Your task to perform on an android device: Do I have any events this weekend? Image 0: 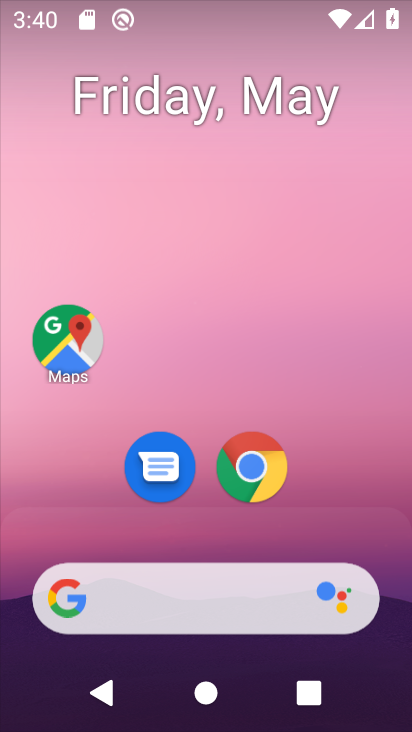
Step 0: drag from (165, 502) to (241, 26)
Your task to perform on an android device: Do I have any events this weekend? Image 1: 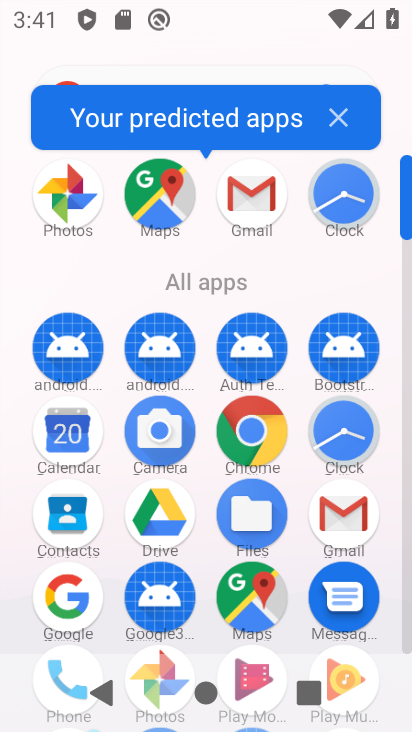
Step 1: click (70, 444)
Your task to perform on an android device: Do I have any events this weekend? Image 2: 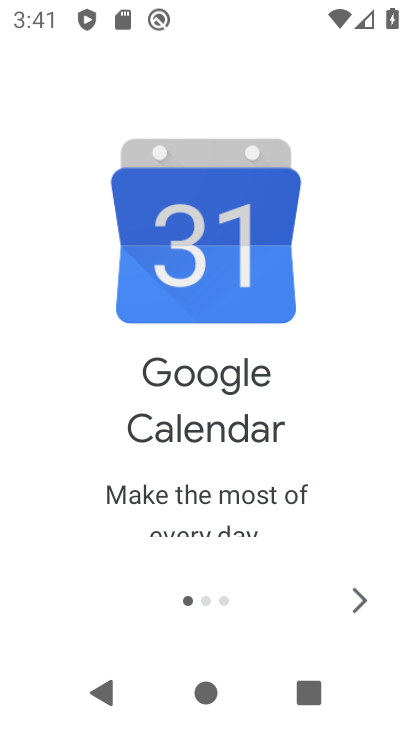
Step 2: click (361, 591)
Your task to perform on an android device: Do I have any events this weekend? Image 3: 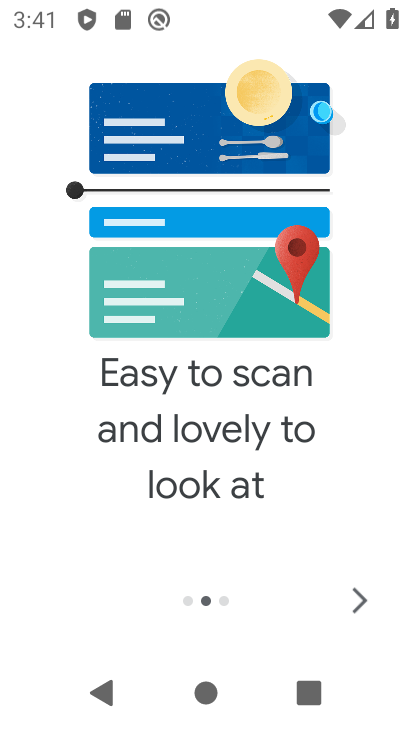
Step 3: click (361, 591)
Your task to perform on an android device: Do I have any events this weekend? Image 4: 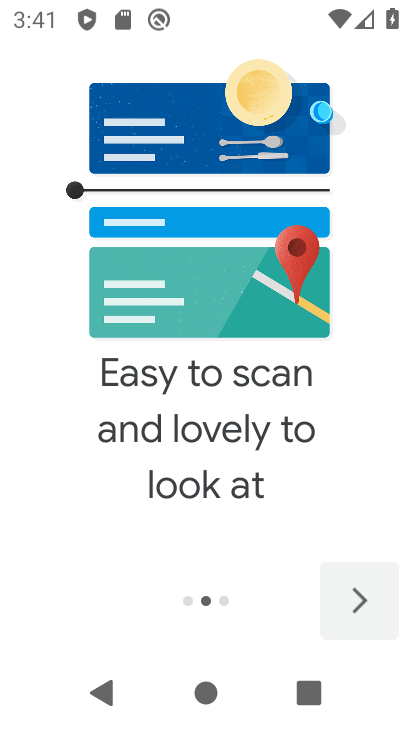
Step 4: click (361, 591)
Your task to perform on an android device: Do I have any events this weekend? Image 5: 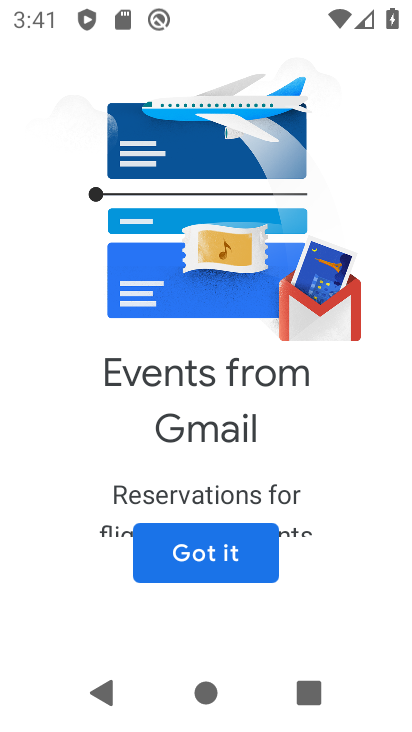
Step 5: click (202, 549)
Your task to perform on an android device: Do I have any events this weekend? Image 6: 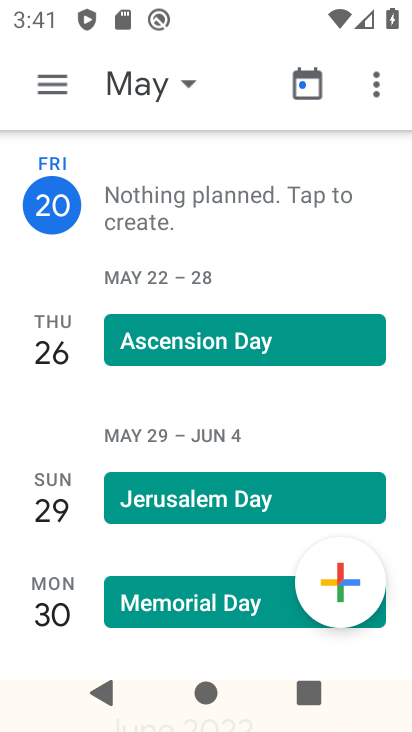
Step 6: task complete